Your task to perform on an android device: Open internet settings Image 0: 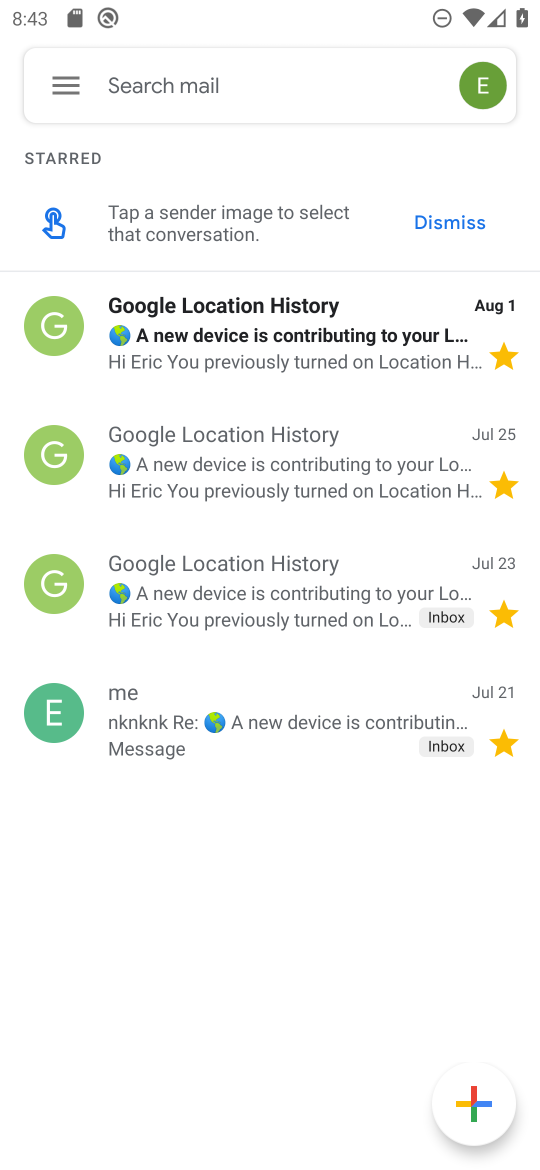
Step 0: press home button
Your task to perform on an android device: Open internet settings Image 1: 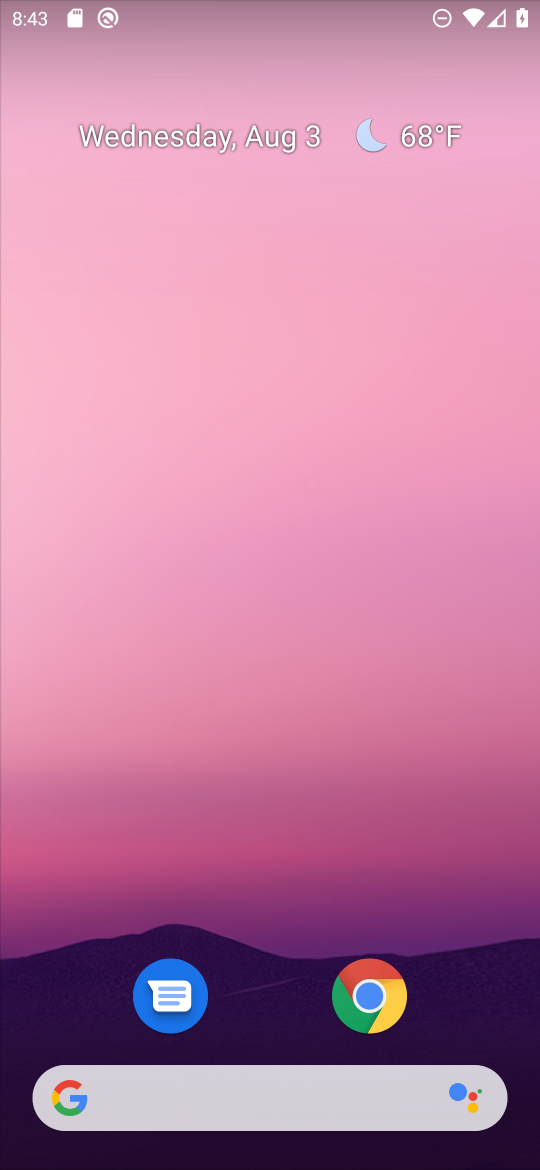
Step 1: drag from (265, 907) to (341, 0)
Your task to perform on an android device: Open internet settings Image 2: 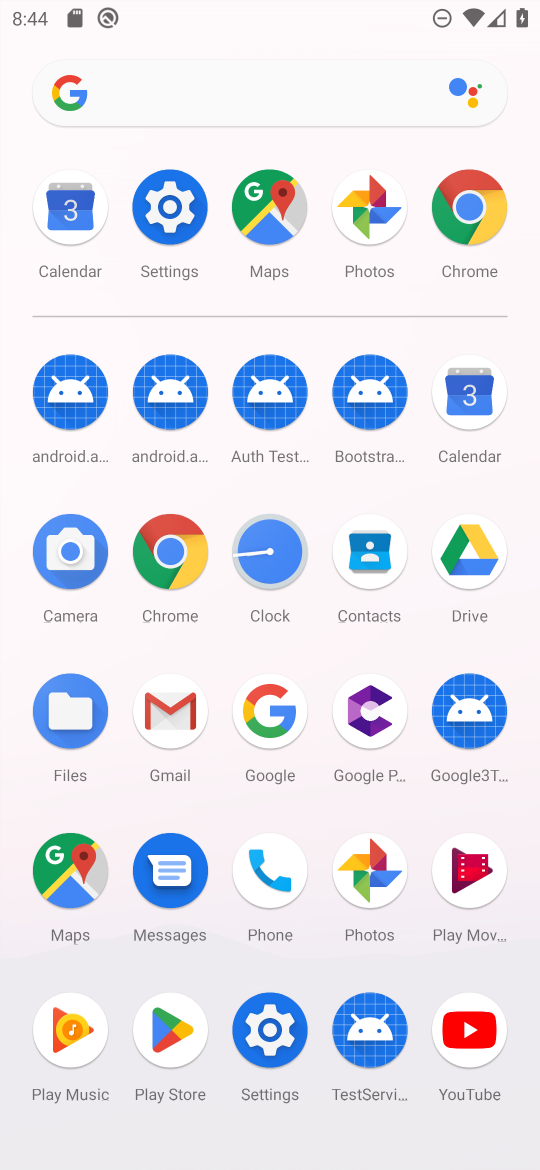
Step 2: click (168, 209)
Your task to perform on an android device: Open internet settings Image 3: 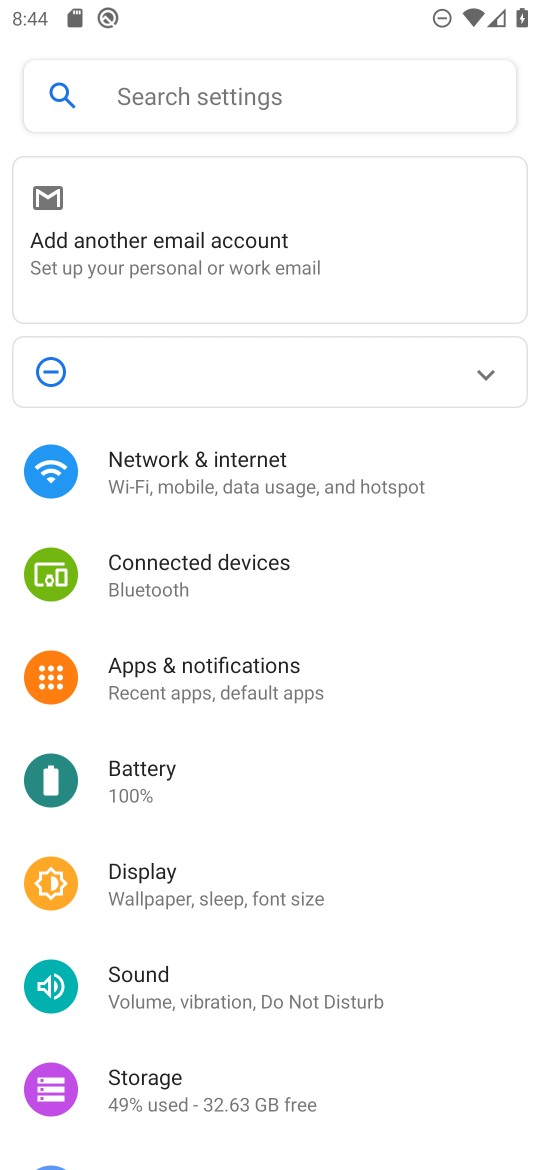
Step 3: click (239, 466)
Your task to perform on an android device: Open internet settings Image 4: 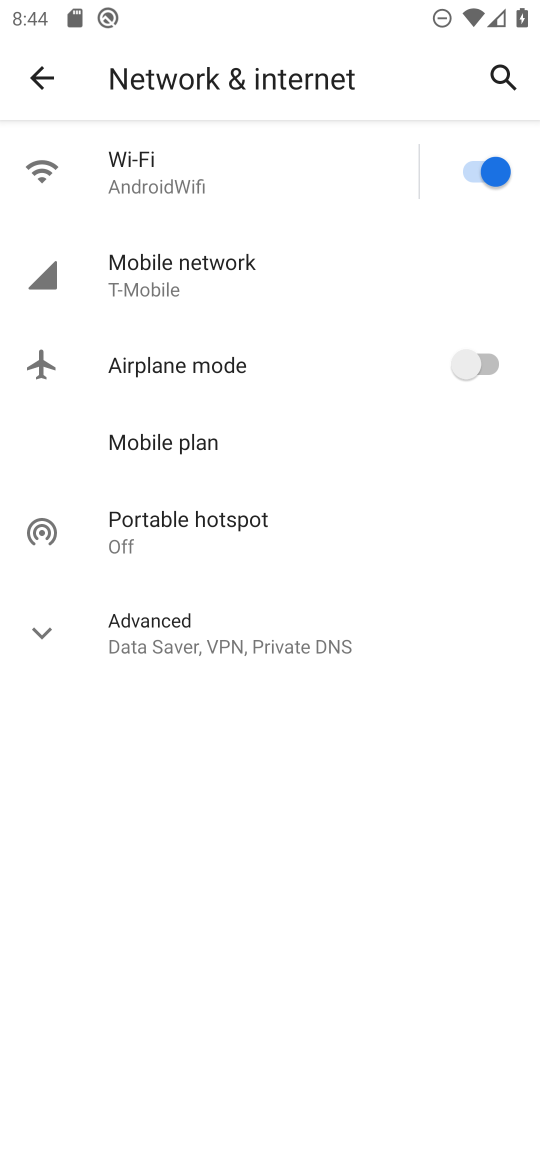
Step 4: task complete